Your task to perform on an android device: check android version Image 0: 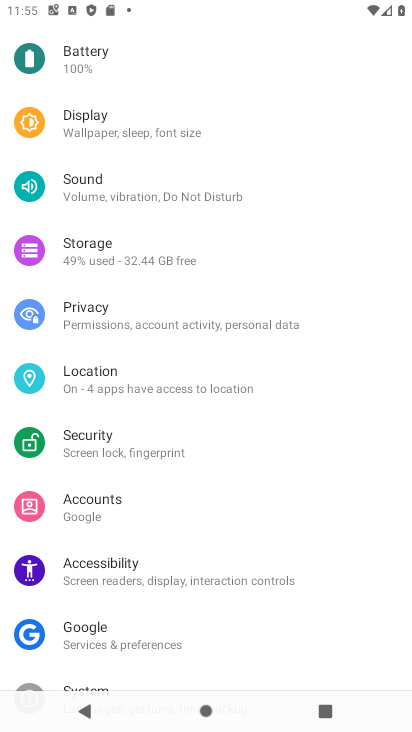
Step 0: drag from (80, 651) to (403, 8)
Your task to perform on an android device: check android version Image 1: 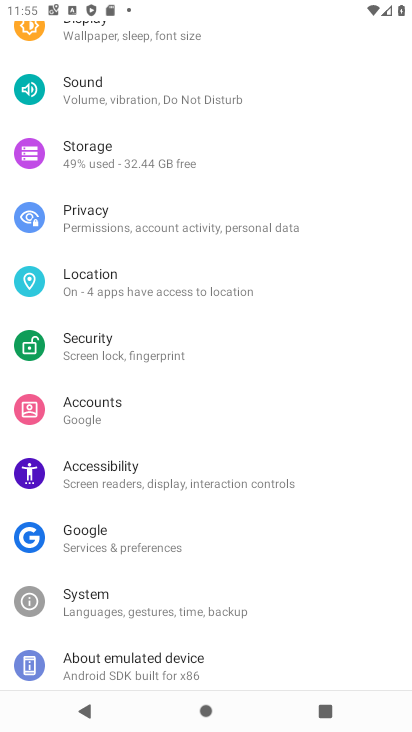
Step 1: click (190, 650)
Your task to perform on an android device: check android version Image 2: 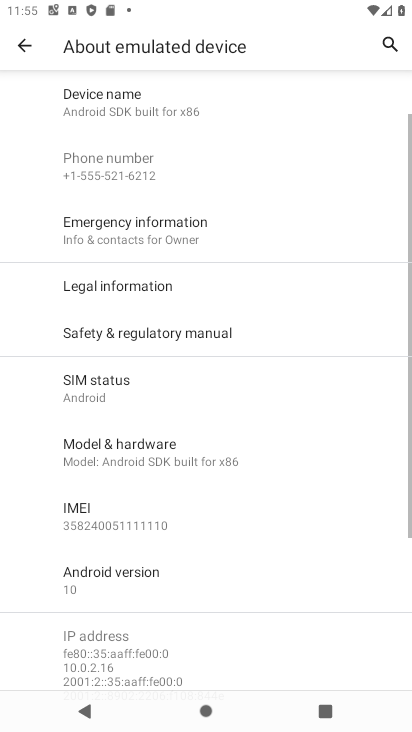
Step 2: click (95, 588)
Your task to perform on an android device: check android version Image 3: 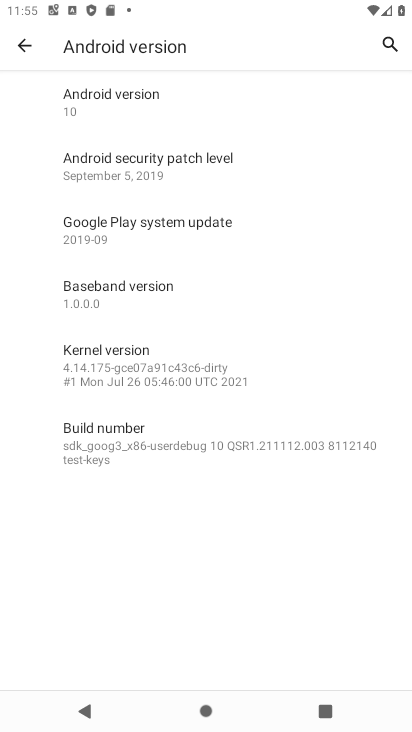
Step 3: task complete